Your task to perform on an android device: Open Google Chrome and click the shortcut for Amazon.com Image 0: 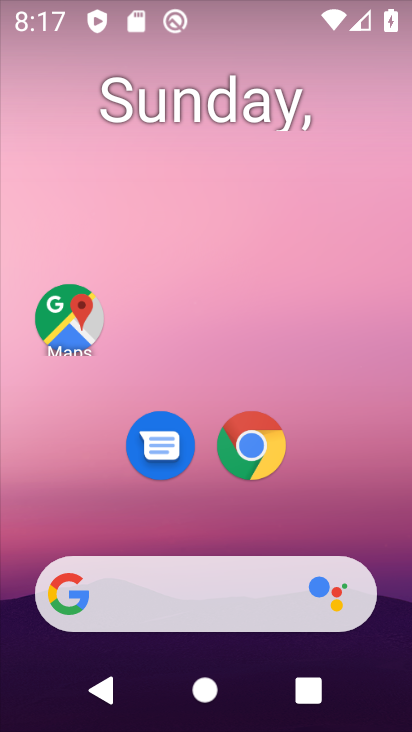
Step 0: click (244, 437)
Your task to perform on an android device: Open Google Chrome and click the shortcut for Amazon.com Image 1: 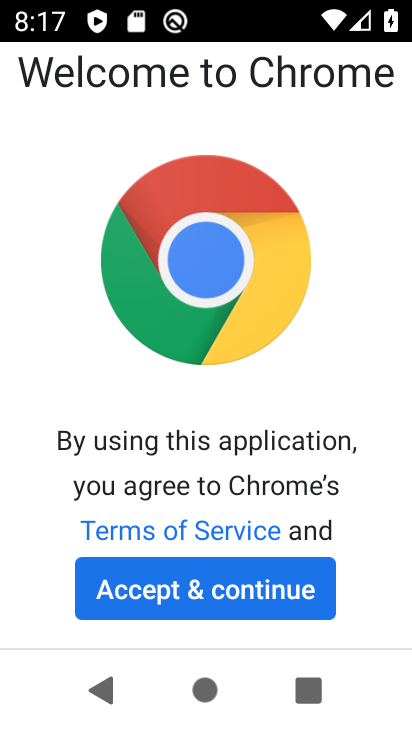
Step 1: click (280, 595)
Your task to perform on an android device: Open Google Chrome and click the shortcut for Amazon.com Image 2: 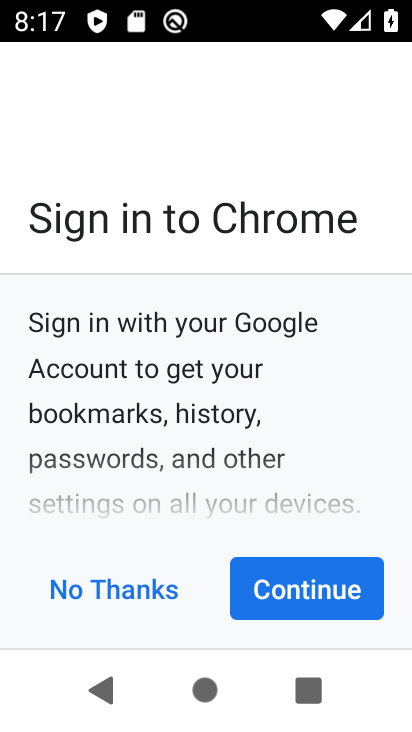
Step 2: click (301, 599)
Your task to perform on an android device: Open Google Chrome and click the shortcut for Amazon.com Image 3: 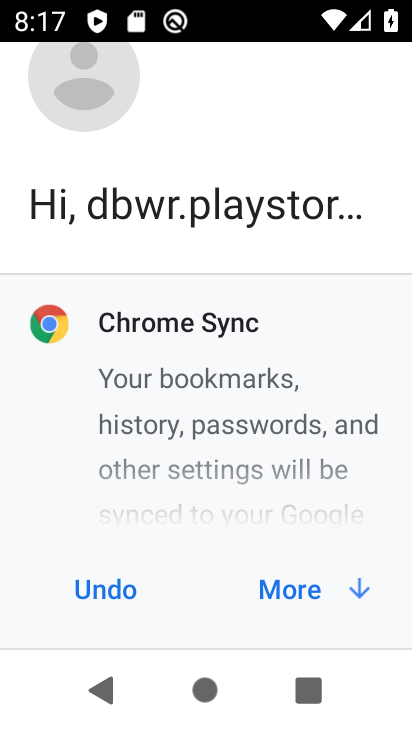
Step 3: click (301, 599)
Your task to perform on an android device: Open Google Chrome and click the shortcut for Amazon.com Image 4: 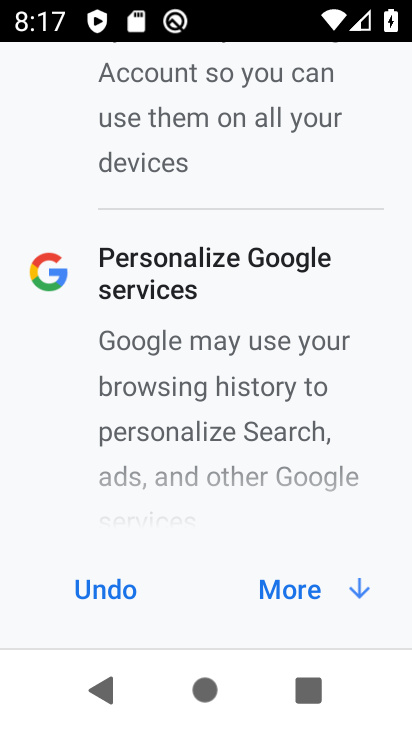
Step 4: click (301, 599)
Your task to perform on an android device: Open Google Chrome and click the shortcut for Amazon.com Image 5: 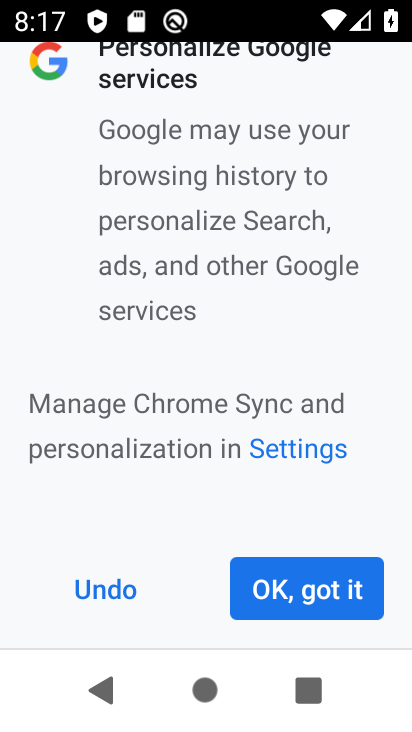
Step 5: click (301, 599)
Your task to perform on an android device: Open Google Chrome and click the shortcut for Amazon.com Image 6: 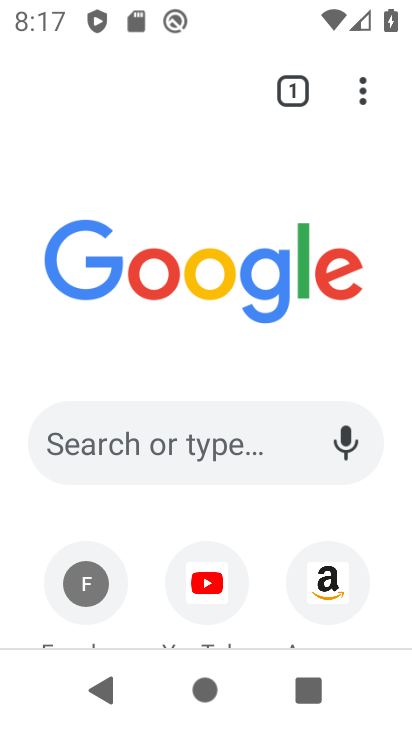
Step 6: click (318, 577)
Your task to perform on an android device: Open Google Chrome and click the shortcut for Amazon.com Image 7: 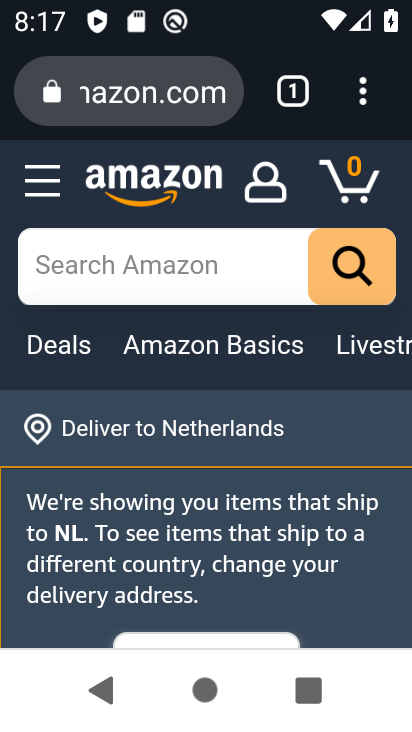
Step 7: task complete